Your task to perform on an android device: open device folders in google photos Image 0: 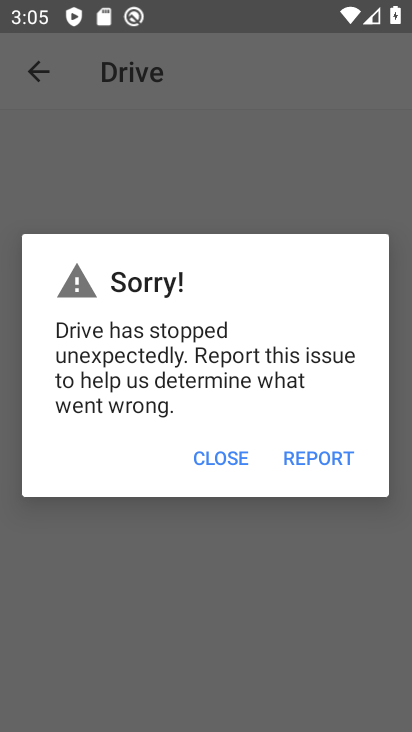
Step 0: press home button
Your task to perform on an android device: open device folders in google photos Image 1: 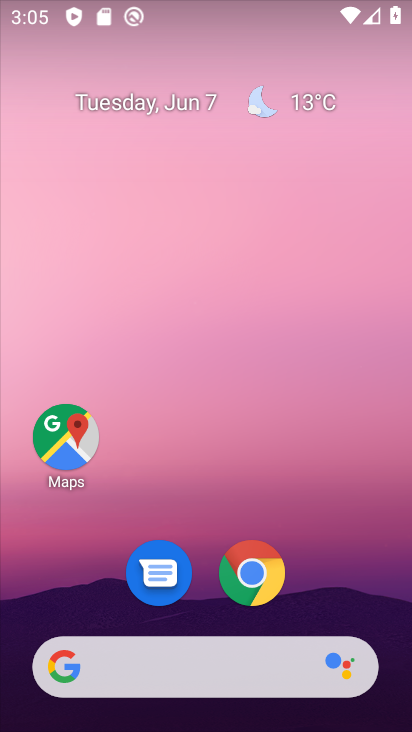
Step 1: drag from (369, 595) to (291, 112)
Your task to perform on an android device: open device folders in google photos Image 2: 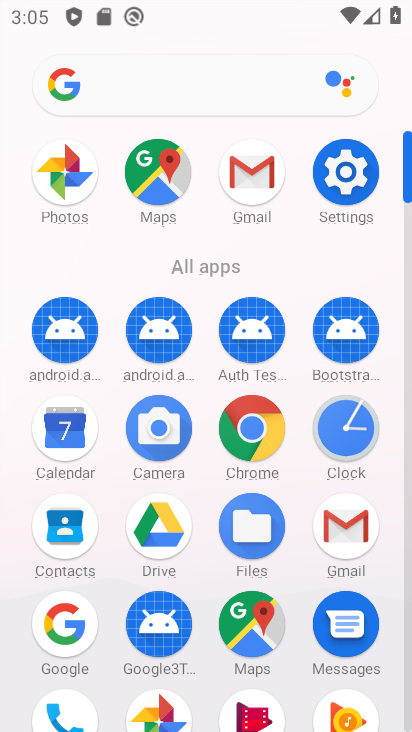
Step 2: click (77, 171)
Your task to perform on an android device: open device folders in google photos Image 3: 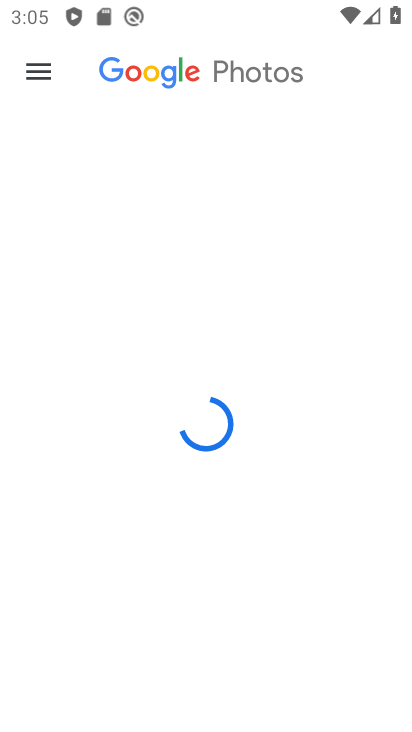
Step 3: click (36, 64)
Your task to perform on an android device: open device folders in google photos Image 4: 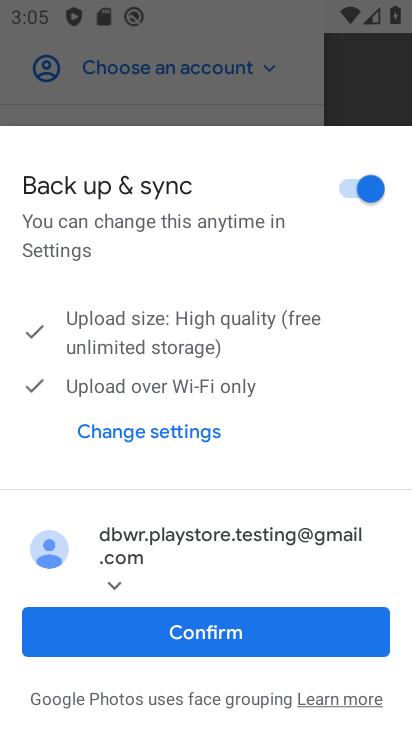
Step 4: click (214, 620)
Your task to perform on an android device: open device folders in google photos Image 5: 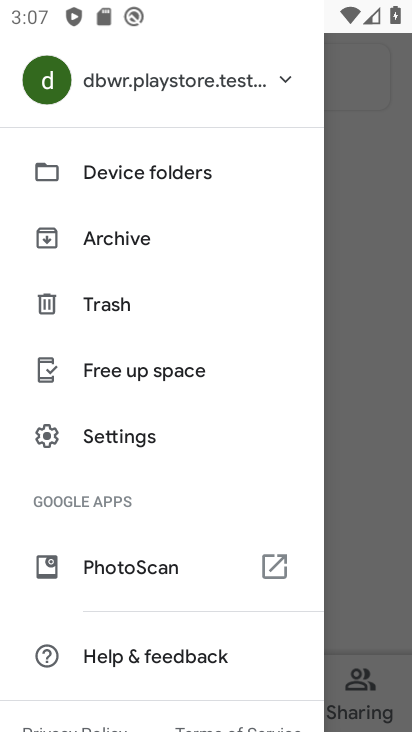
Step 5: click (175, 161)
Your task to perform on an android device: open device folders in google photos Image 6: 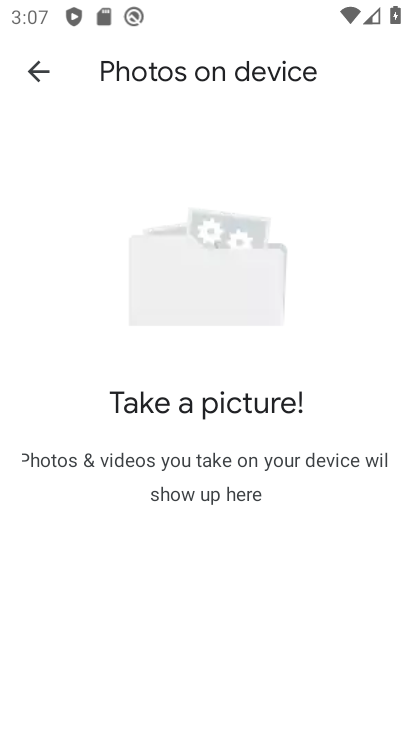
Step 6: task complete